Your task to perform on an android device: create a new album in the google photos Image 0: 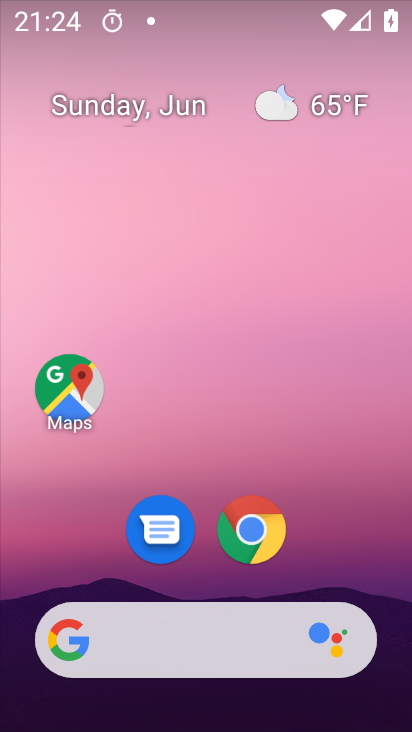
Step 0: drag from (211, 570) to (207, 50)
Your task to perform on an android device: create a new album in the google photos Image 1: 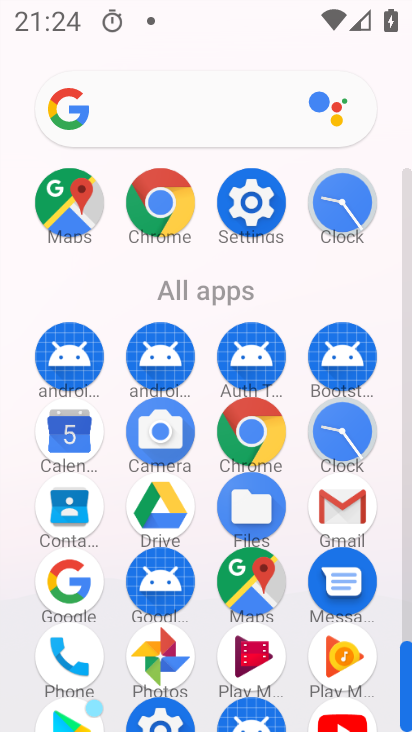
Step 1: click (160, 662)
Your task to perform on an android device: create a new album in the google photos Image 2: 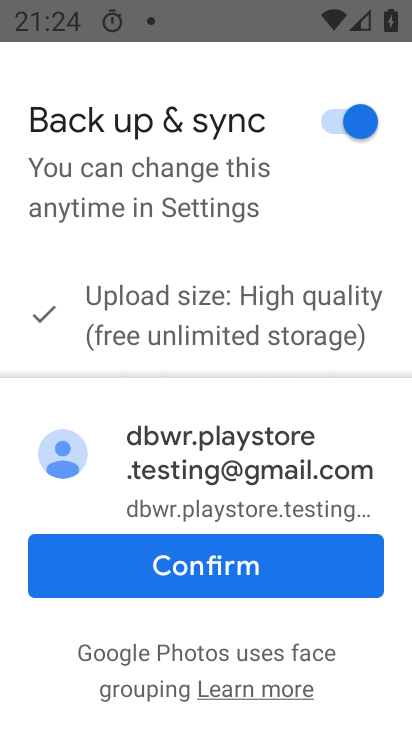
Step 2: click (145, 546)
Your task to perform on an android device: create a new album in the google photos Image 3: 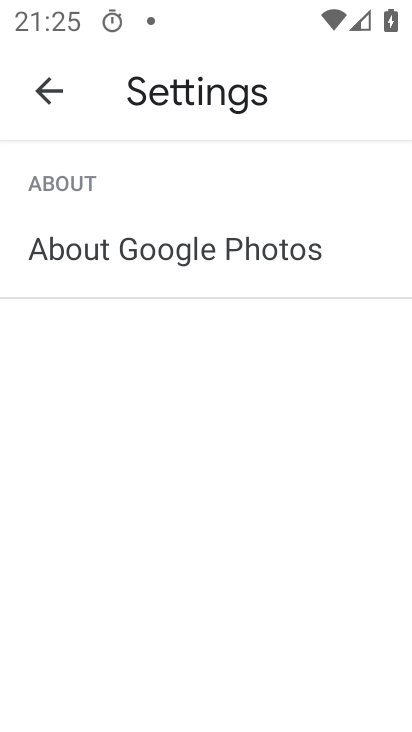
Step 3: click (54, 105)
Your task to perform on an android device: create a new album in the google photos Image 4: 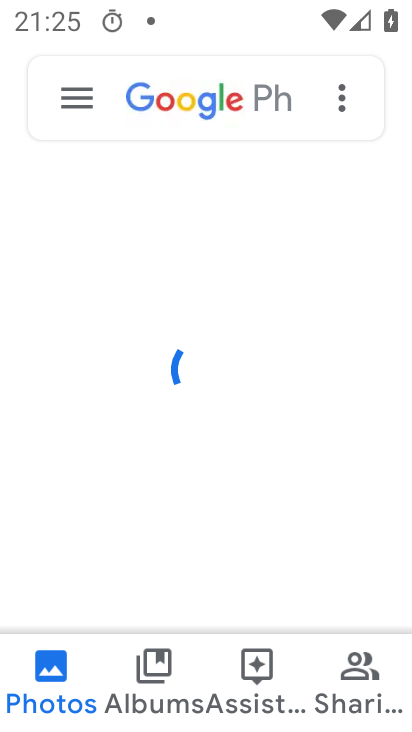
Step 4: click (167, 684)
Your task to perform on an android device: create a new album in the google photos Image 5: 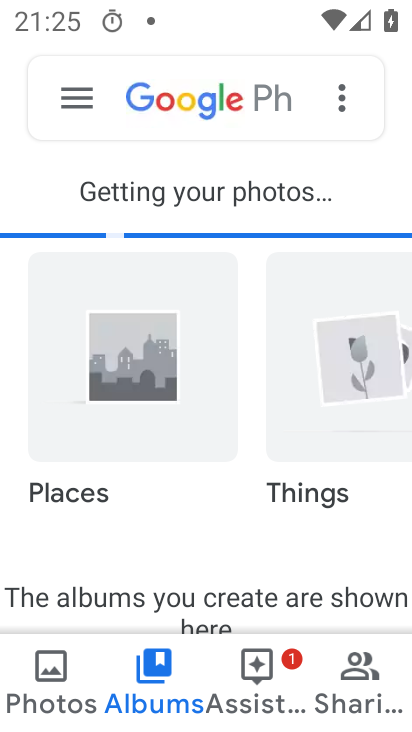
Step 5: click (341, 92)
Your task to perform on an android device: create a new album in the google photos Image 6: 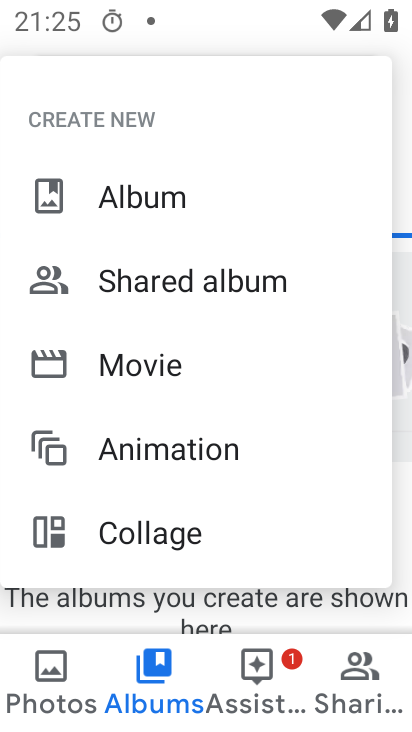
Step 6: click (140, 212)
Your task to perform on an android device: create a new album in the google photos Image 7: 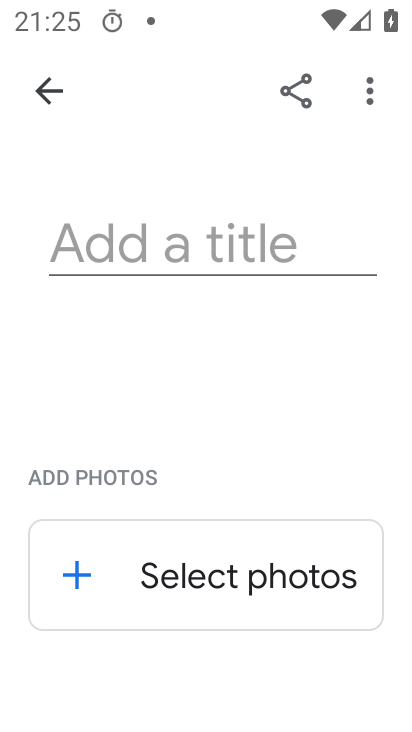
Step 7: click (138, 239)
Your task to perform on an android device: create a new album in the google photos Image 8: 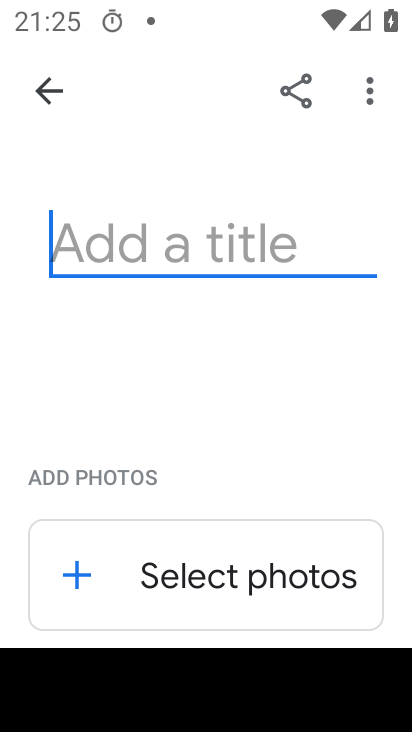
Step 8: type "edfrtghyujji"
Your task to perform on an android device: create a new album in the google photos Image 9: 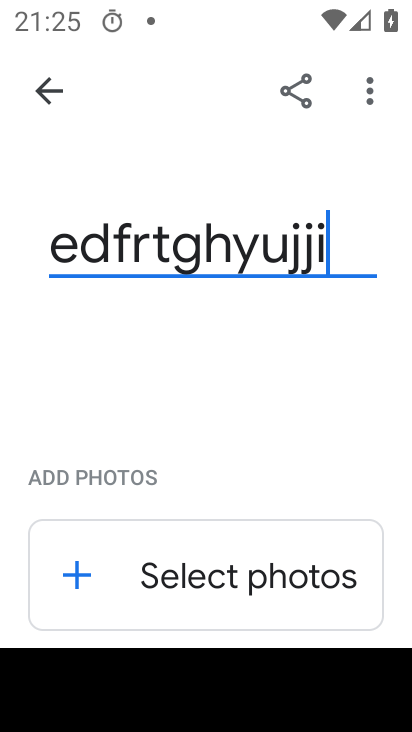
Step 9: click (83, 569)
Your task to perform on an android device: create a new album in the google photos Image 10: 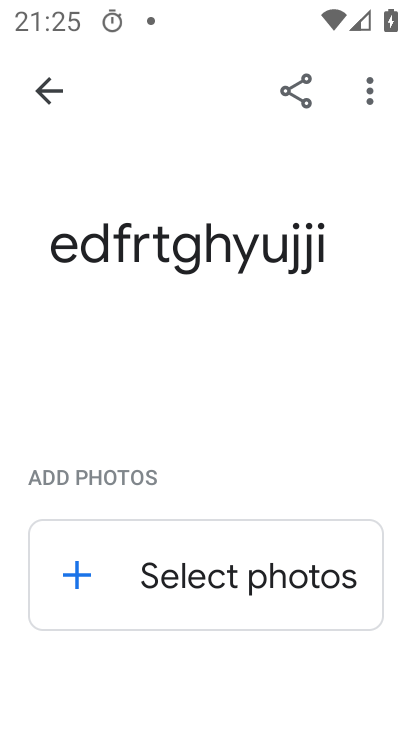
Step 10: click (80, 578)
Your task to perform on an android device: create a new album in the google photos Image 11: 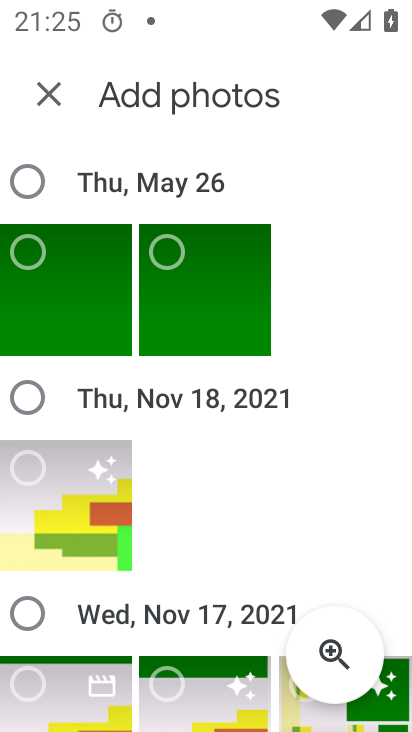
Step 11: click (130, 269)
Your task to perform on an android device: create a new album in the google photos Image 12: 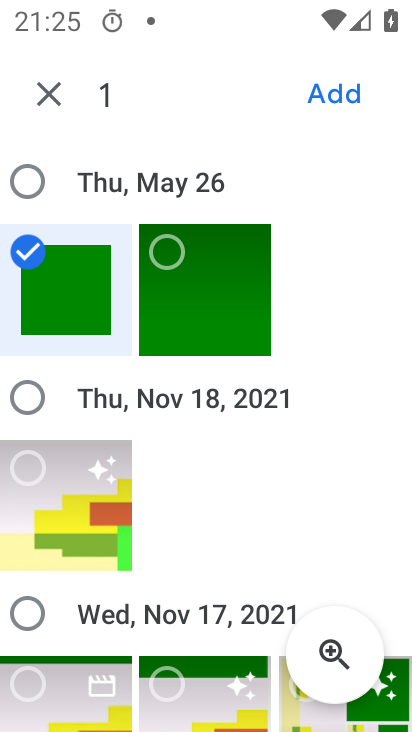
Step 12: click (315, 101)
Your task to perform on an android device: create a new album in the google photos Image 13: 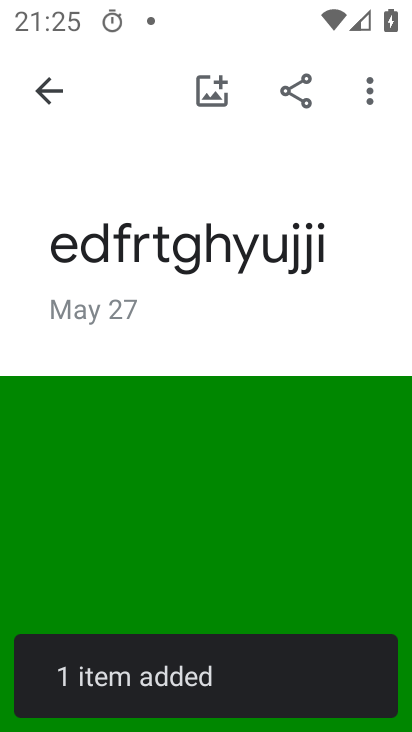
Step 13: task complete